Your task to perform on an android device: change the upload size in google photos Image 0: 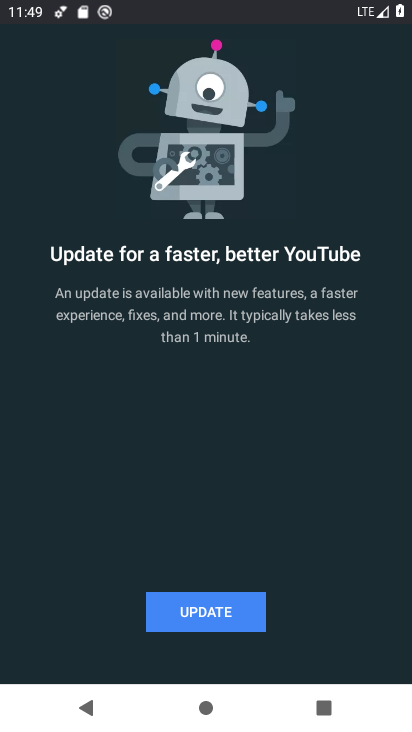
Step 0: press home button
Your task to perform on an android device: change the upload size in google photos Image 1: 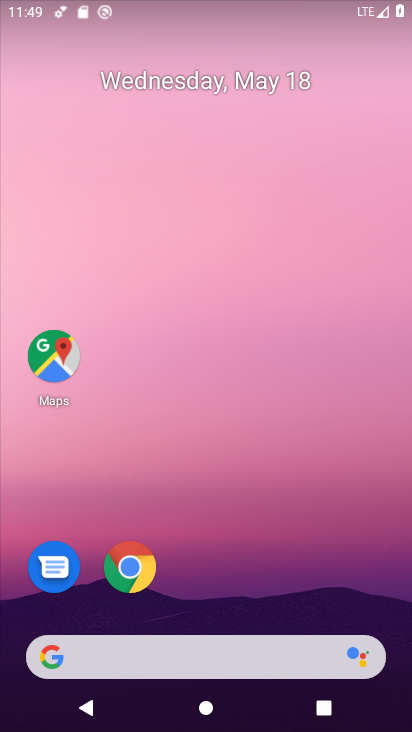
Step 1: drag from (343, 369) to (377, 22)
Your task to perform on an android device: change the upload size in google photos Image 2: 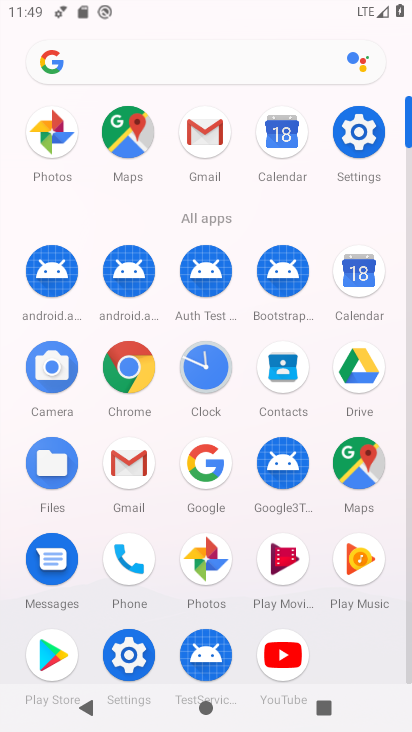
Step 2: click (51, 138)
Your task to perform on an android device: change the upload size in google photos Image 3: 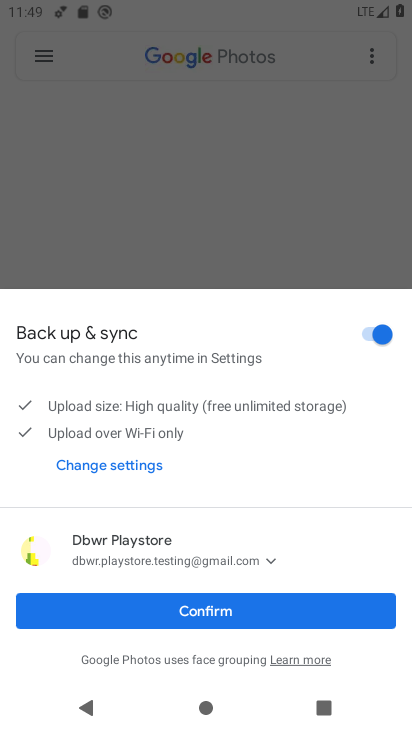
Step 3: click (199, 598)
Your task to perform on an android device: change the upload size in google photos Image 4: 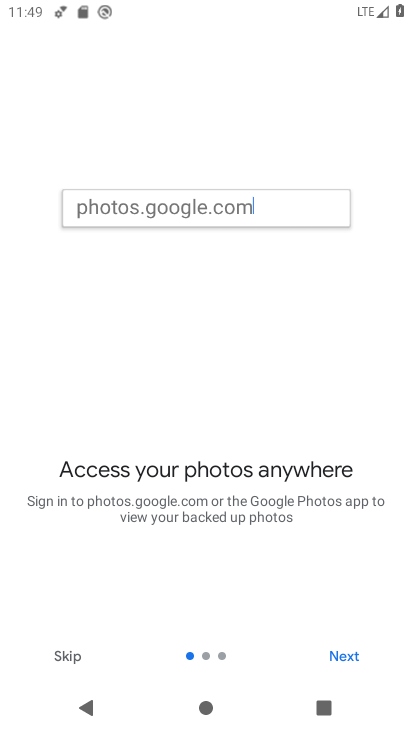
Step 4: click (344, 664)
Your task to perform on an android device: change the upload size in google photos Image 5: 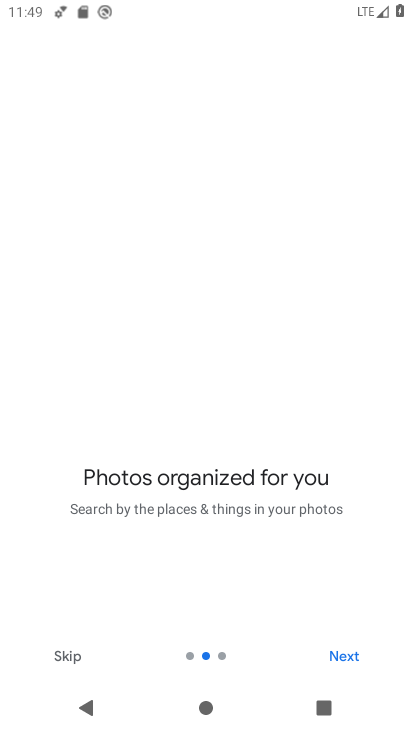
Step 5: click (344, 664)
Your task to perform on an android device: change the upload size in google photos Image 6: 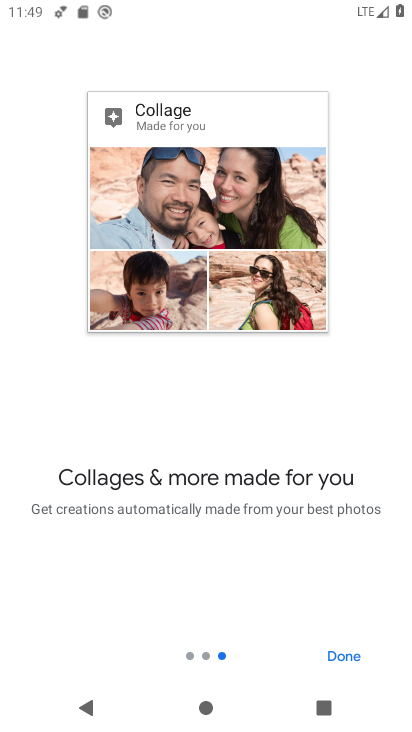
Step 6: click (344, 663)
Your task to perform on an android device: change the upload size in google photos Image 7: 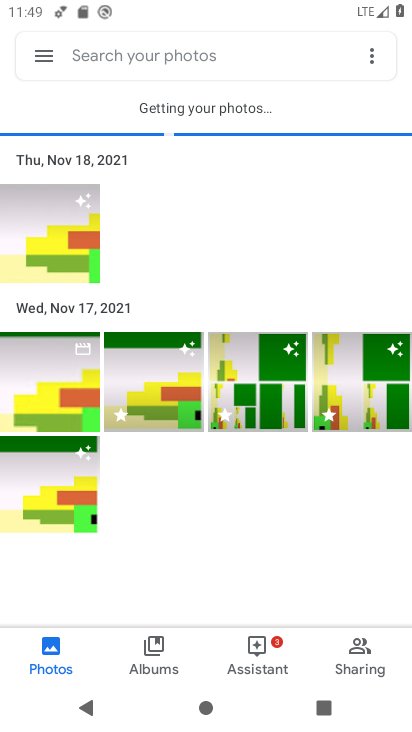
Step 7: click (45, 66)
Your task to perform on an android device: change the upload size in google photos Image 8: 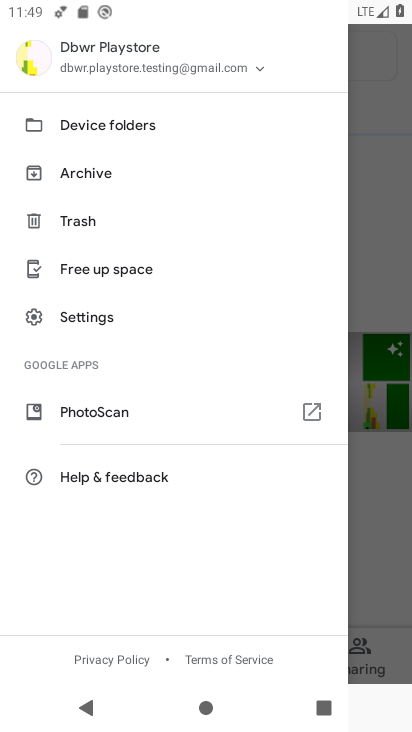
Step 8: click (90, 319)
Your task to perform on an android device: change the upload size in google photos Image 9: 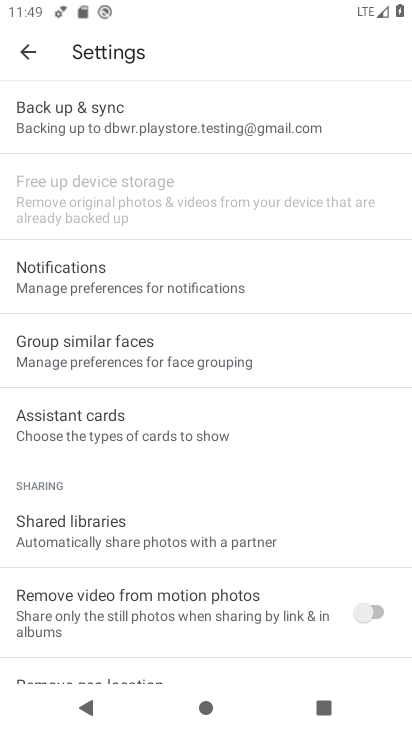
Step 9: click (50, 129)
Your task to perform on an android device: change the upload size in google photos Image 10: 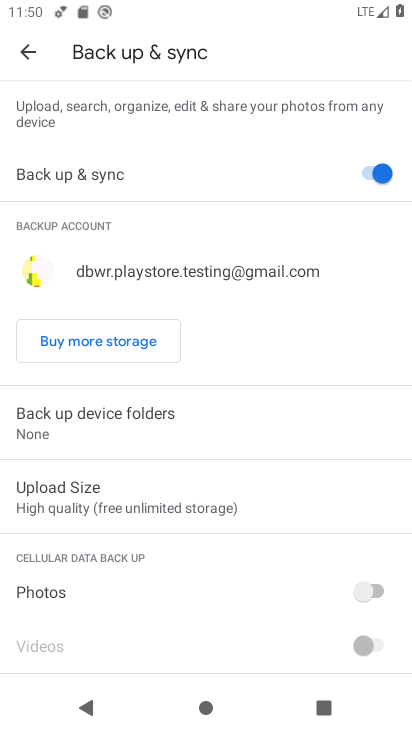
Step 10: click (68, 510)
Your task to perform on an android device: change the upload size in google photos Image 11: 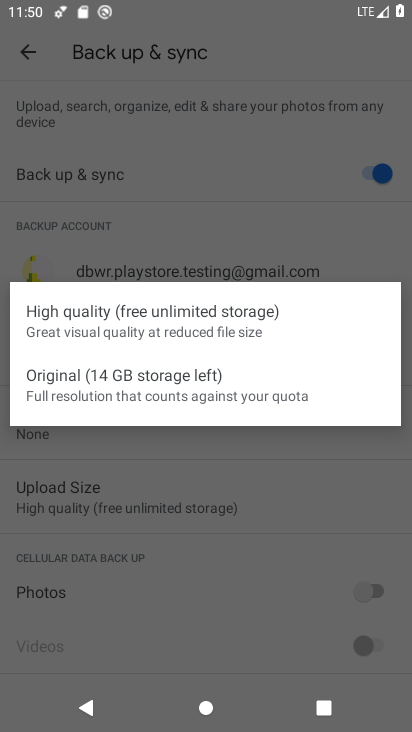
Step 11: click (111, 400)
Your task to perform on an android device: change the upload size in google photos Image 12: 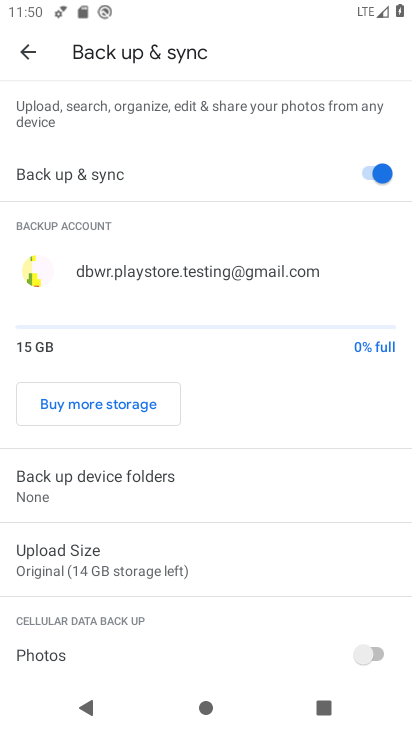
Step 12: task complete